Your task to perform on an android device: What's the weather? Image 0: 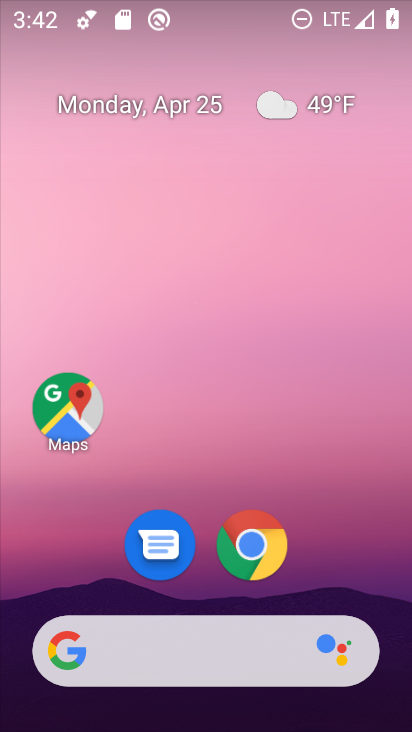
Step 0: click (310, 97)
Your task to perform on an android device: What's the weather? Image 1: 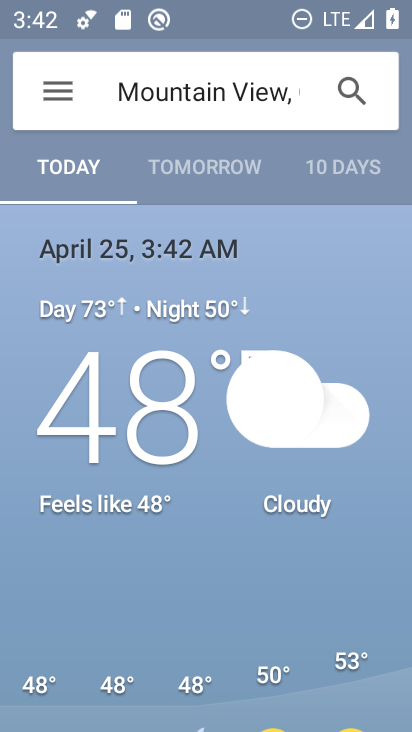
Step 1: task complete